Your task to perform on an android device: clear all cookies in the chrome app Image 0: 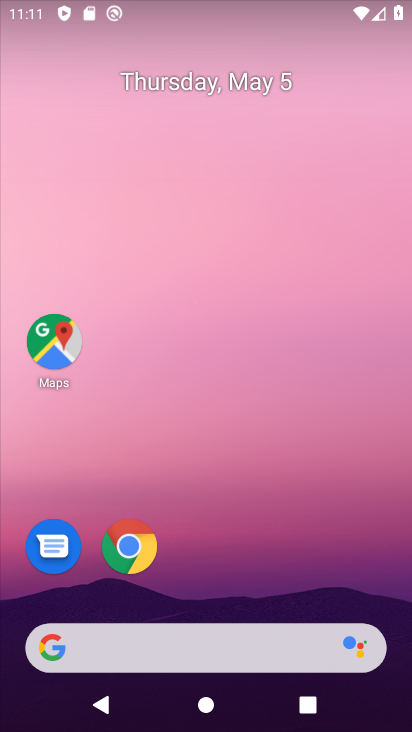
Step 0: click (118, 548)
Your task to perform on an android device: clear all cookies in the chrome app Image 1: 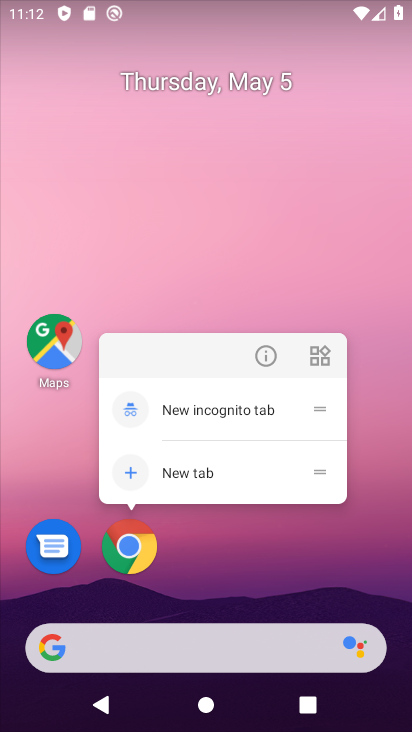
Step 1: click (119, 548)
Your task to perform on an android device: clear all cookies in the chrome app Image 2: 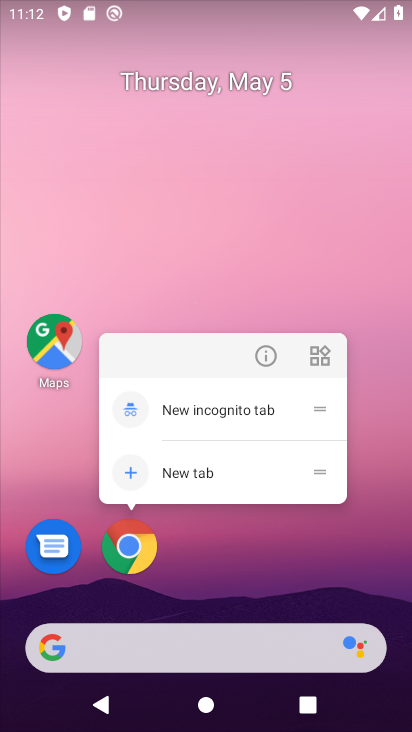
Step 2: click (125, 541)
Your task to perform on an android device: clear all cookies in the chrome app Image 3: 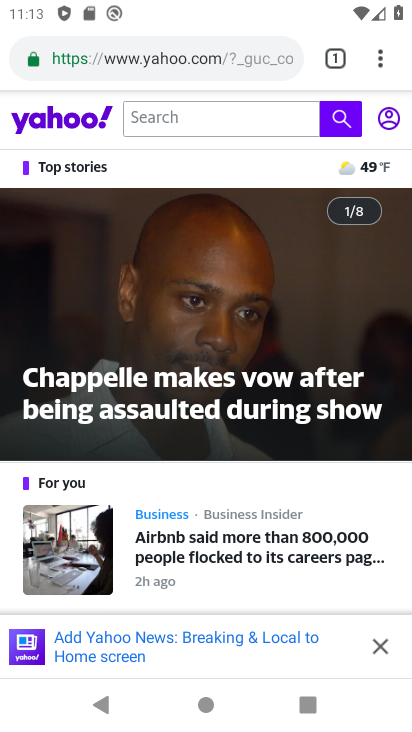
Step 3: click (376, 63)
Your task to perform on an android device: clear all cookies in the chrome app Image 4: 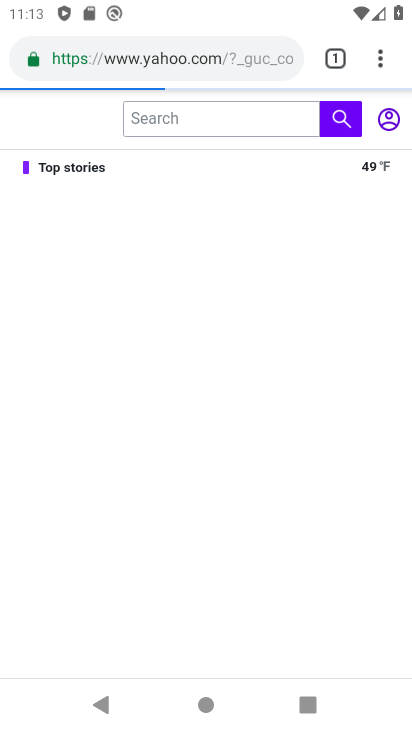
Step 4: click (379, 59)
Your task to perform on an android device: clear all cookies in the chrome app Image 5: 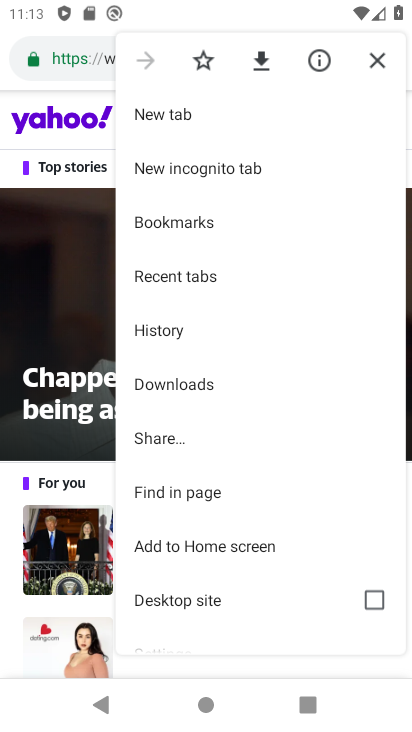
Step 5: click (152, 335)
Your task to perform on an android device: clear all cookies in the chrome app Image 6: 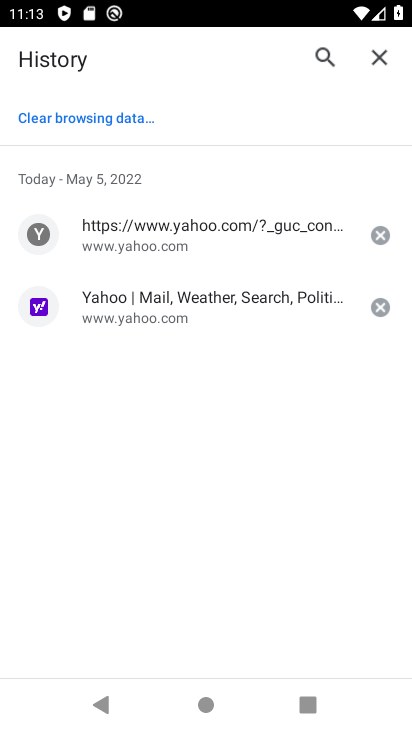
Step 6: click (382, 59)
Your task to perform on an android device: clear all cookies in the chrome app Image 7: 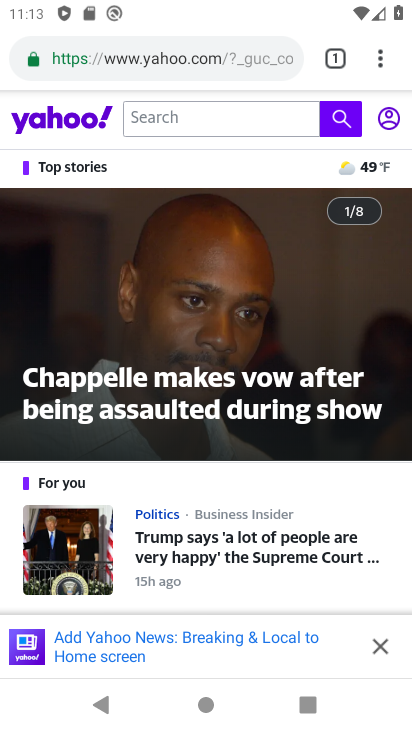
Step 7: click (382, 59)
Your task to perform on an android device: clear all cookies in the chrome app Image 8: 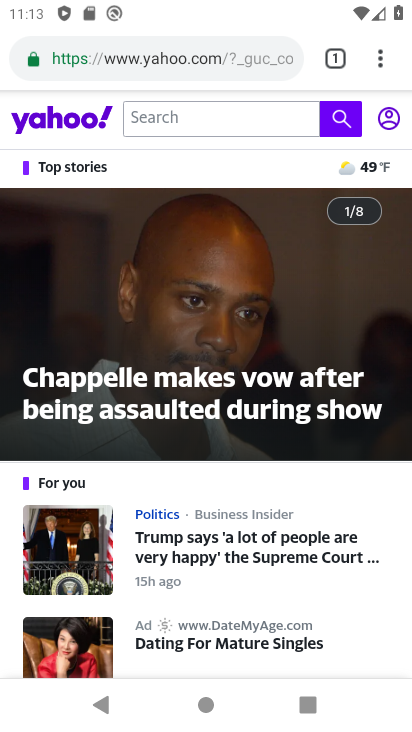
Step 8: click (376, 61)
Your task to perform on an android device: clear all cookies in the chrome app Image 9: 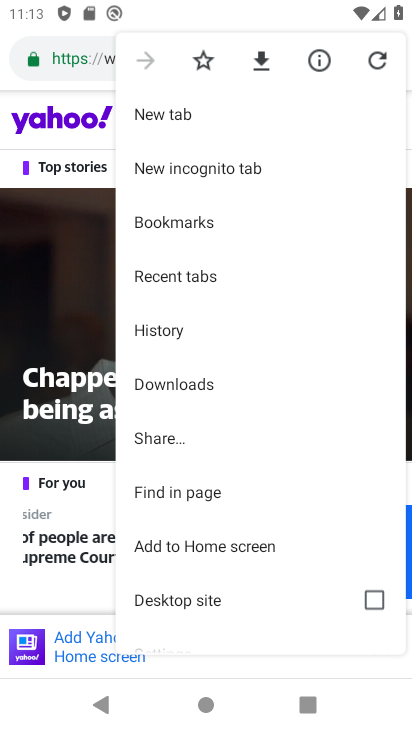
Step 9: drag from (174, 583) to (218, 255)
Your task to perform on an android device: clear all cookies in the chrome app Image 10: 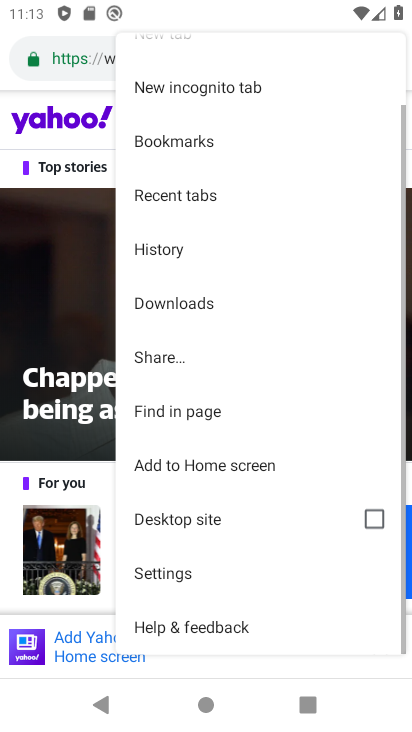
Step 10: click (147, 576)
Your task to perform on an android device: clear all cookies in the chrome app Image 11: 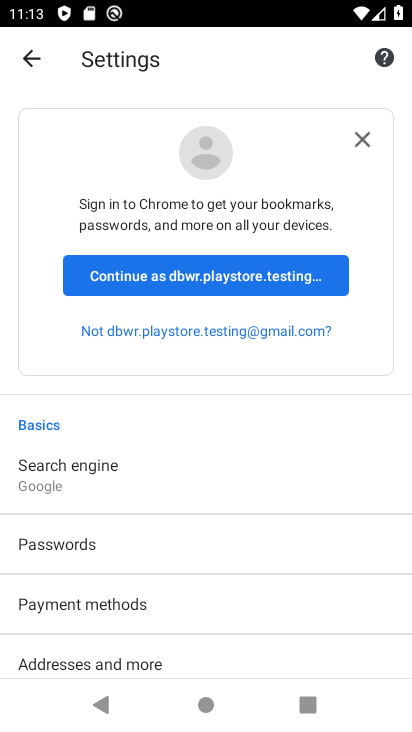
Step 11: click (361, 136)
Your task to perform on an android device: clear all cookies in the chrome app Image 12: 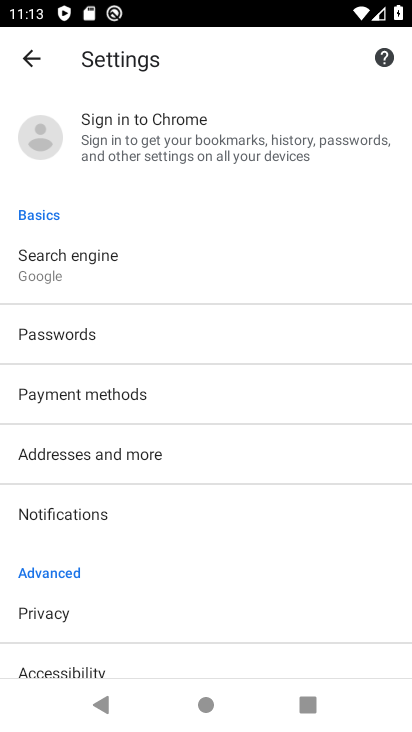
Step 12: drag from (217, 638) to (273, 298)
Your task to perform on an android device: clear all cookies in the chrome app Image 13: 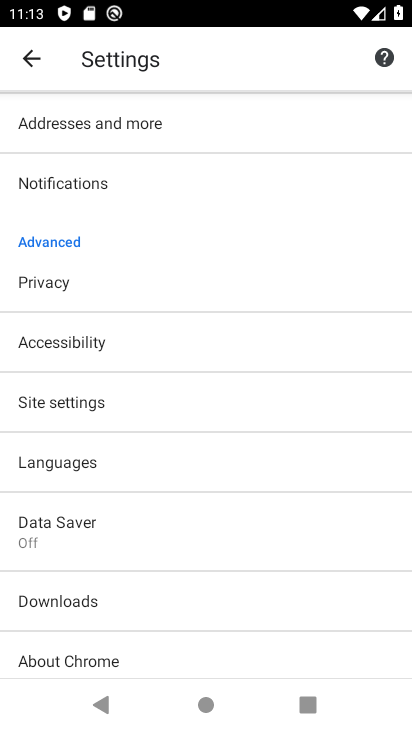
Step 13: click (138, 286)
Your task to perform on an android device: clear all cookies in the chrome app Image 14: 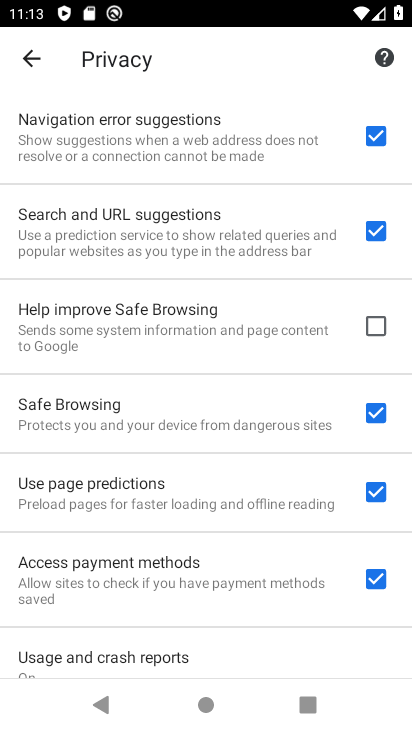
Step 14: drag from (151, 596) to (228, 220)
Your task to perform on an android device: clear all cookies in the chrome app Image 15: 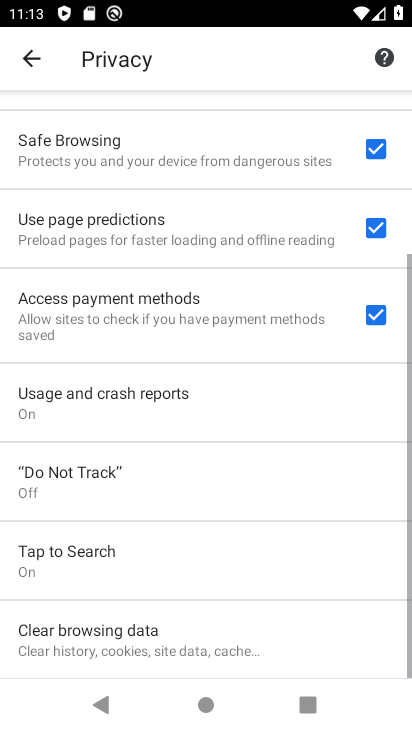
Step 15: click (142, 628)
Your task to perform on an android device: clear all cookies in the chrome app Image 16: 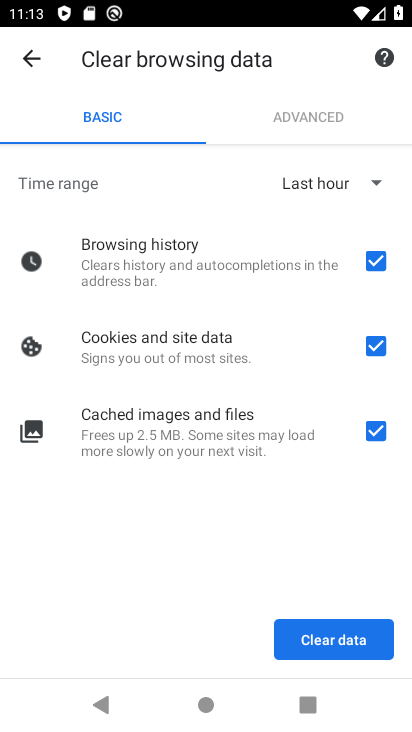
Step 16: click (369, 432)
Your task to perform on an android device: clear all cookies in the chrome app Image 17: 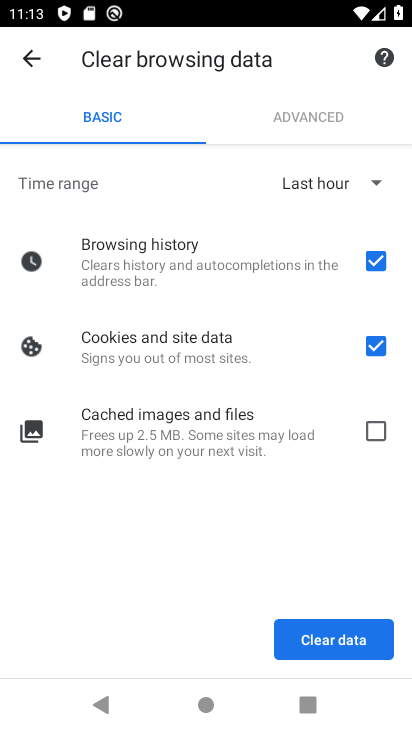
Step 17: click (329, 658)
Your task to perform on an android device: clear all cookies in the chrome app Image 18: 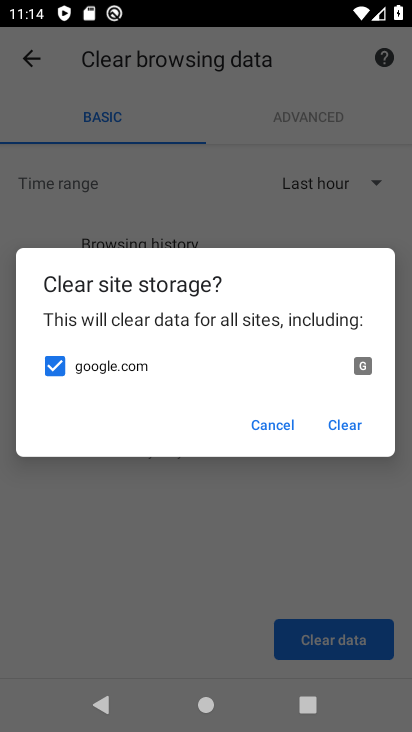
Step 18: click (359, 419)
Your task to perform on an android device: clear all cookies in the chrome app Image 19: 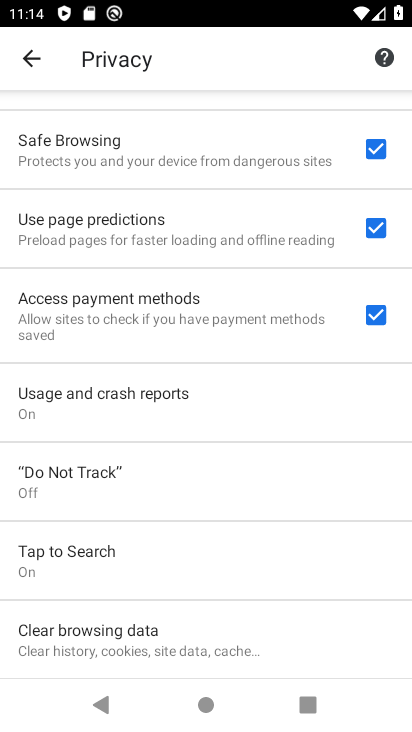
Step 19: task complete